Your task to perform on an android device: Go to Google Image 0: 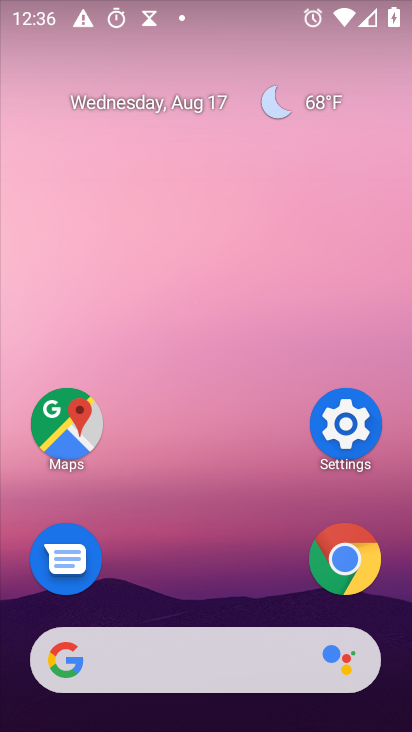
Step 0: press home button
Your task to perform on an android device: Go to Google Image 1: 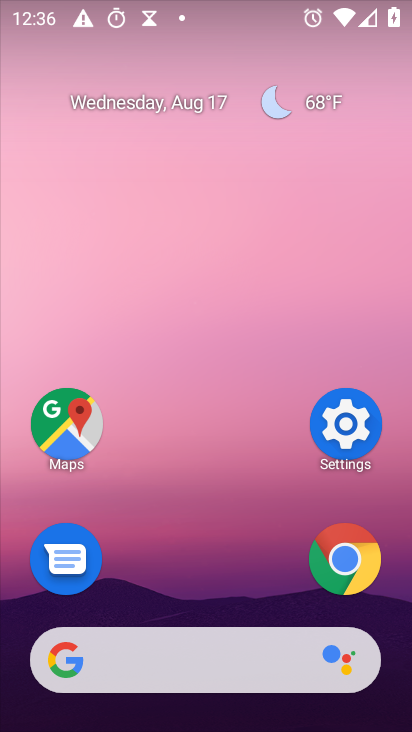
Step 1: drag from (197, 621) to (343, 50)
Your task to perform on an android device: Go to Google Image 2: 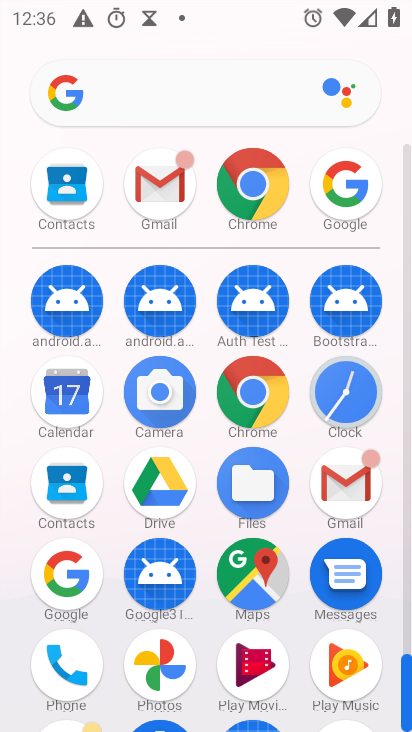
Step 2: click (74, 570)
Your task to perform on an android device: Go to Google Image 3: 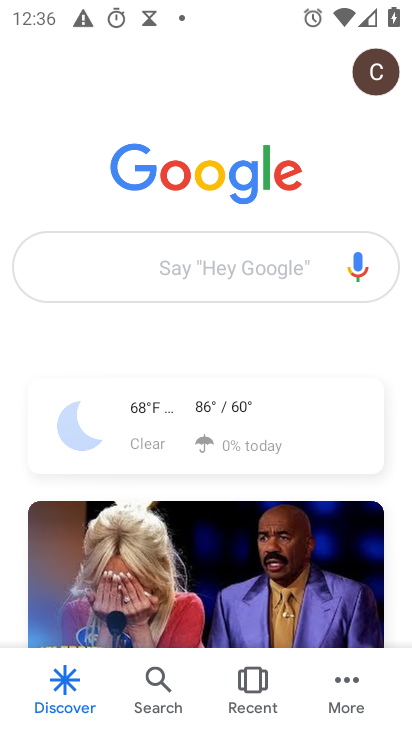
Step 3: task complete